Your task to perform on an android device: Go to privacy settings Image 0: 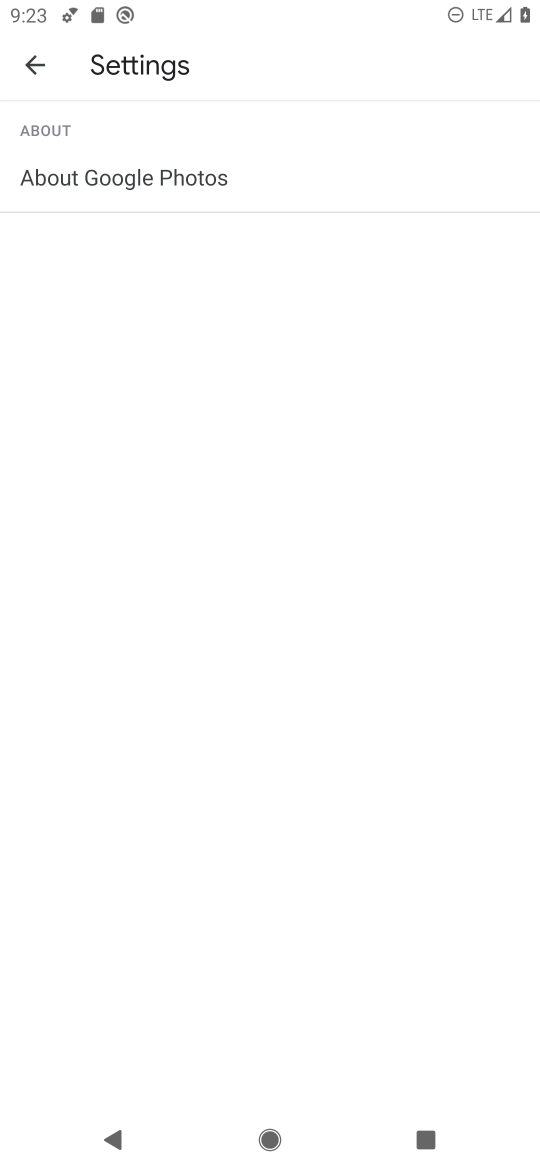
Step 0: press home button
Your task to perform on an android device: Go to privacy settings Image 1: 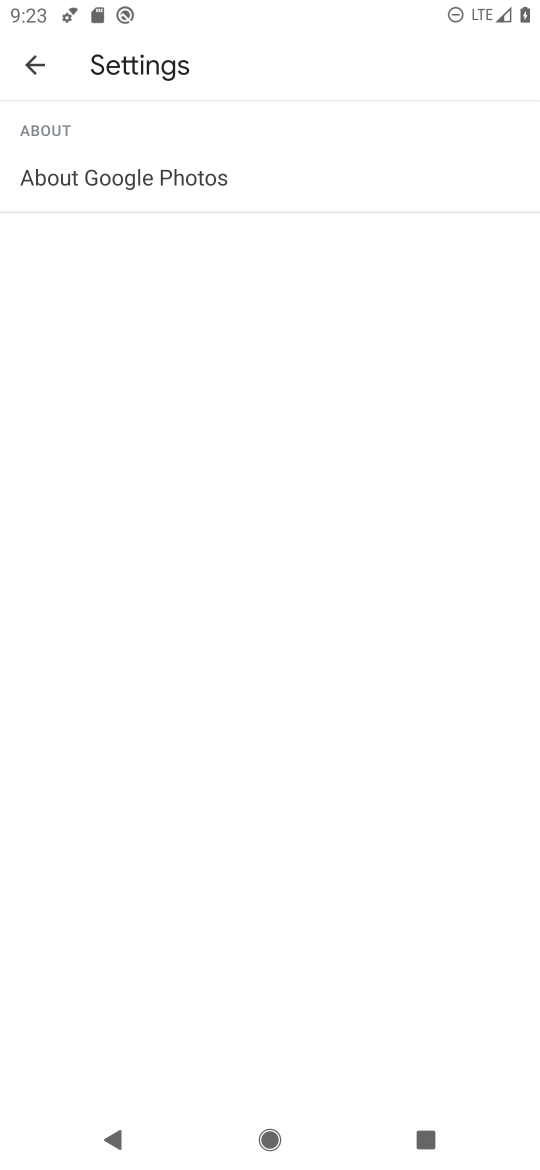
Step 1: press home button
Your task to perform on an android device: Go to privacy settings Image 2: 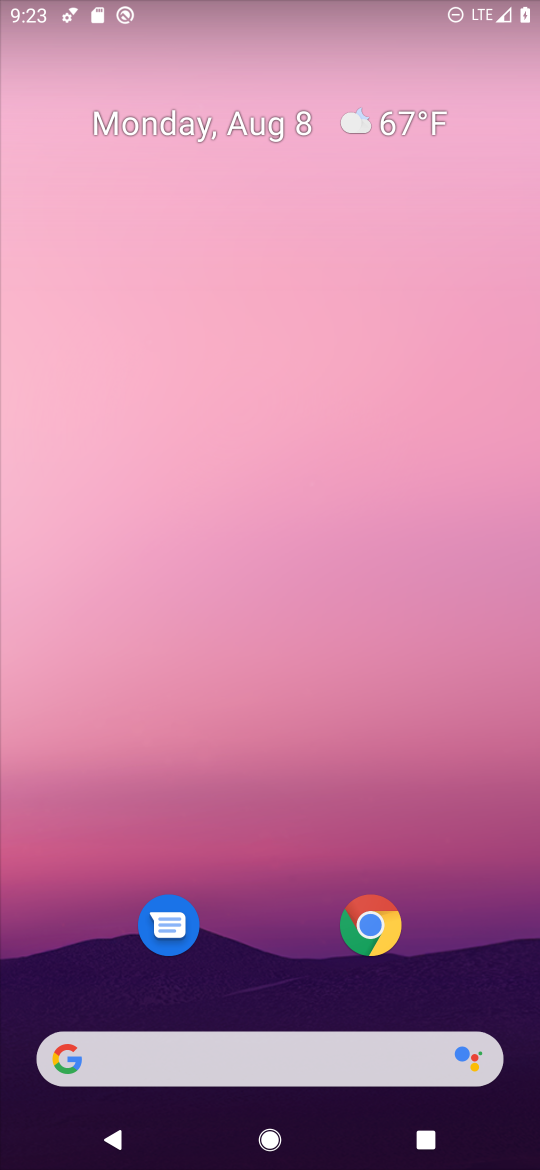
Step 2: drag from (290, 752) to (351, 106)
Your task to perform on an android device: Go to privacy settings Image 3: 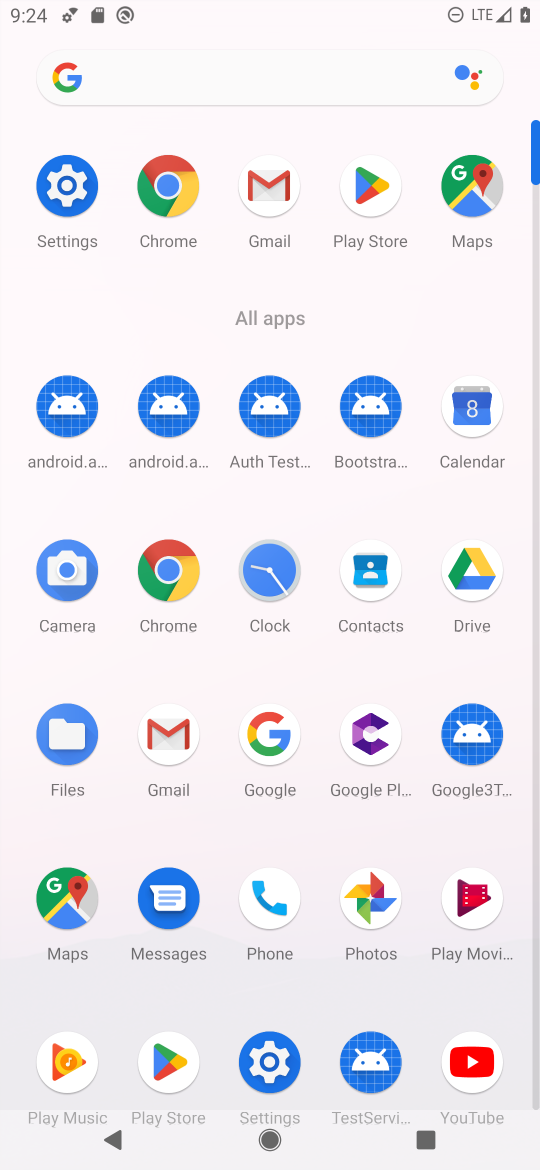
Step 3: click (273, 1067)
Your task to perform on an android device: Go to privacy settings Image 4: 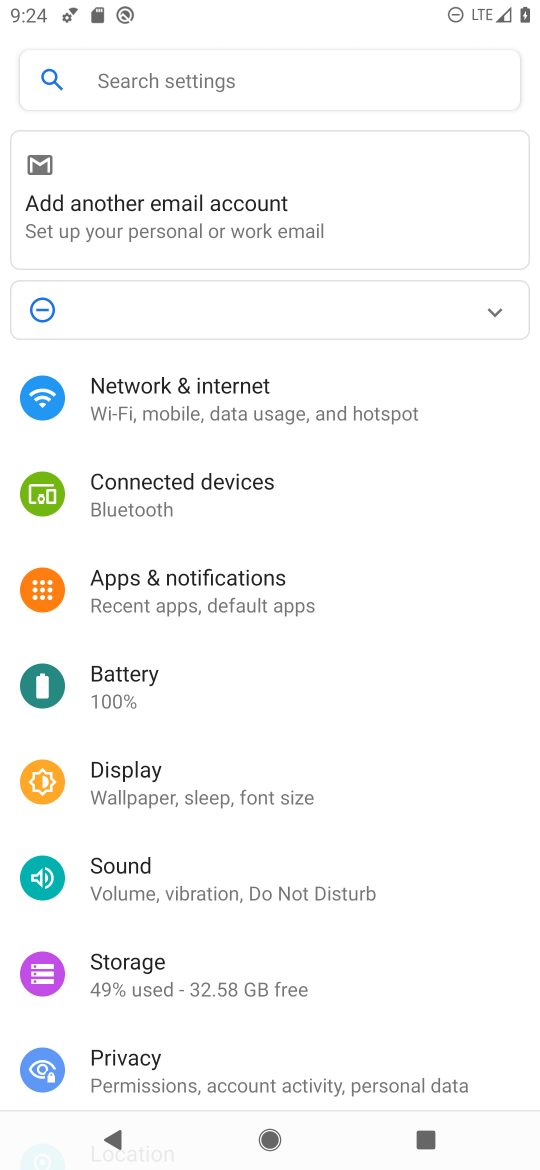
Step 4: click (149, 1073)
Your task to perform on an android device: Go to privacy settings Image 5: 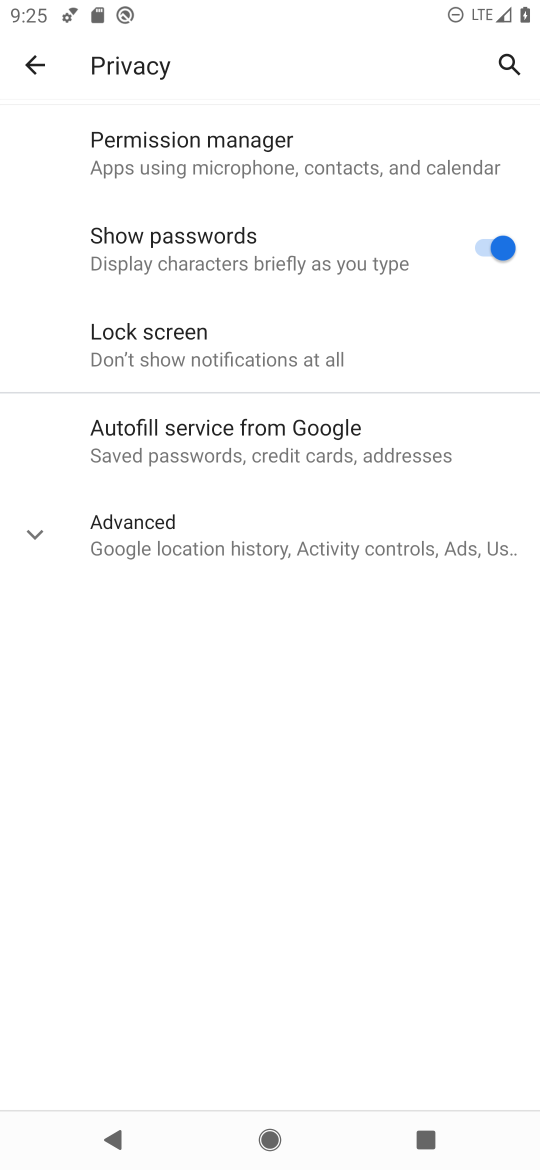
Step 5: task complete